Your task to perform on an android device: move a message to another label in the gmail app Image 0: 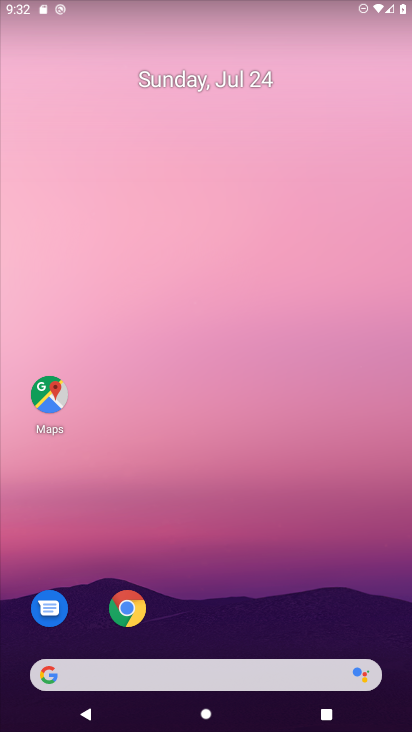
Step 0: drag from (188, 628) to (231, 190)
Your task to perform on an android device: move a message to another label in the gmail app Image 1: 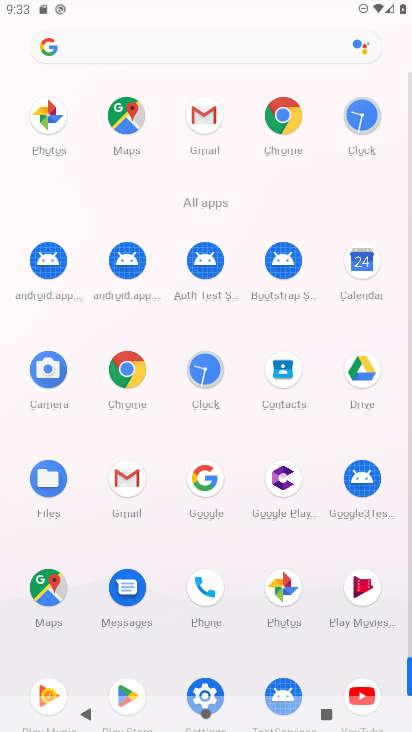
Step 1: click (122, 482)
Your task to perform on an android device: move a message to another label in the gmail app Image 2: 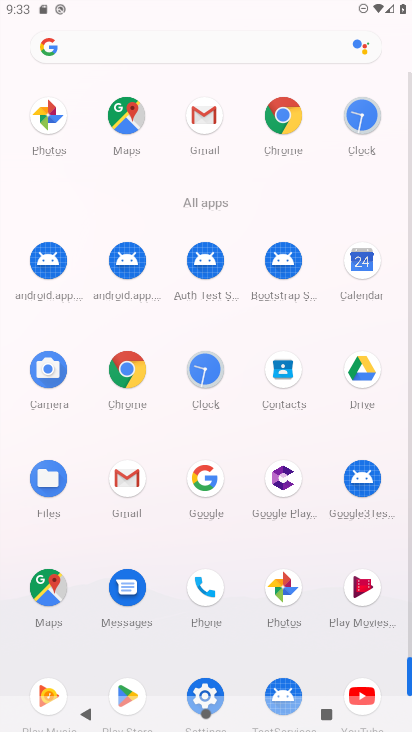
Step 2: click (122, 482)
Your task to perform on an android device: move a message to another label in the gmail app Image 3: 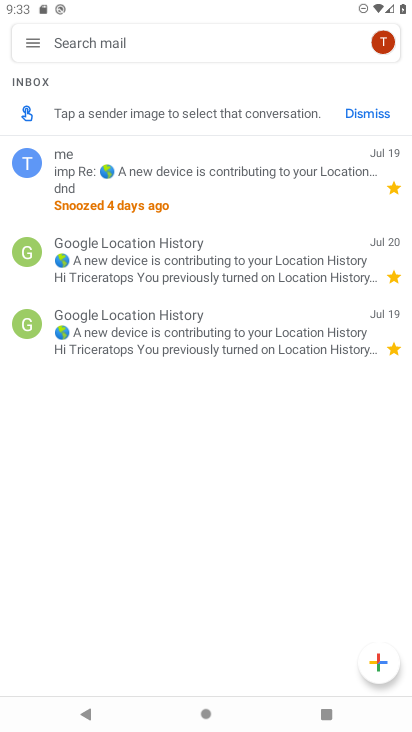
Step 3: drag from (230, 595) to (200, 302)
Your task to perform on an android device: move a message to another label in the gmail app Image 4: 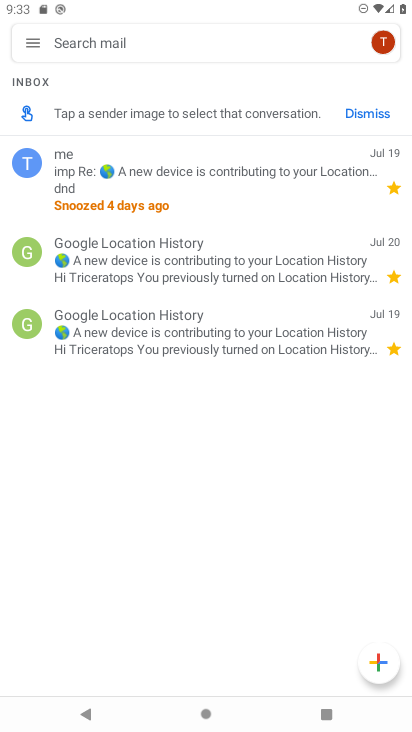
Step 4: drag from (204, 580) to (207, 382)
Your task to perform on an android device: move a message to another label in the gmail app Image 5: 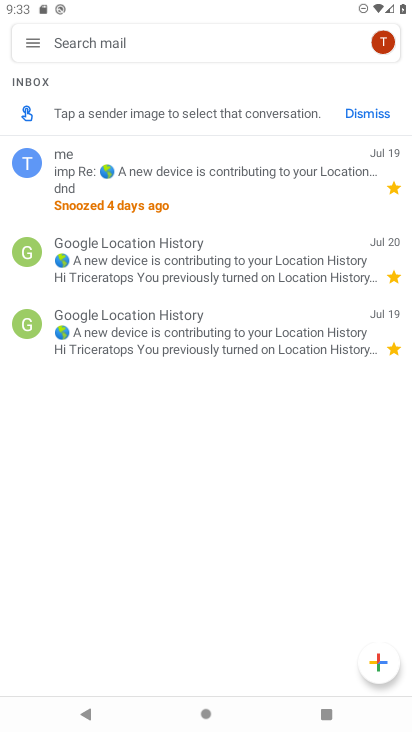
Step 5: drag from (187, 564) to (211, 270)
Your task to perform on an android device: move a message to another label in the gmail app Image 6: 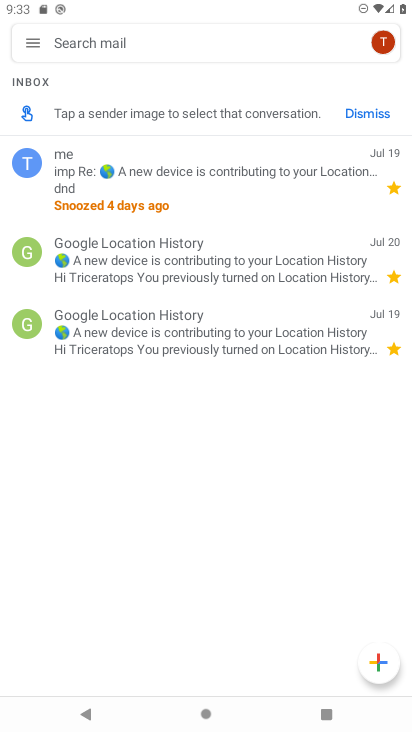
Step 6: drag from (173, 556) to (175, 160)
Your task to perform on an android device: move a message to another label in the gmail app Image 7: 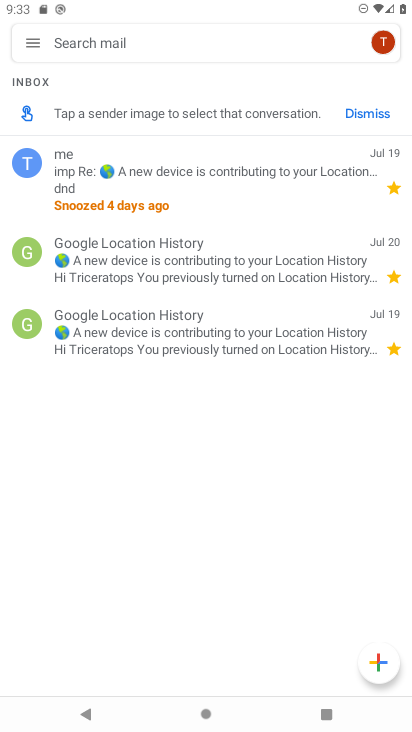
Step 7: drag from (197, 555) to (202, 391)
Your task to perform on an android device: move a message to another label in the gmail app Image 8: 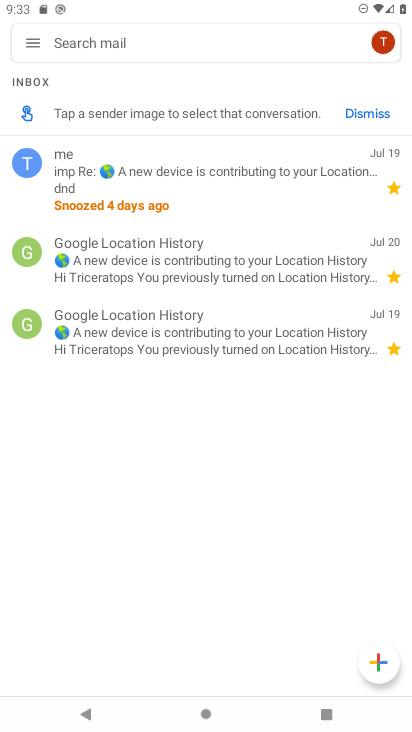
Step 8: drag from (187, 515) to (174, 358)
Your task to perform on an android device: move a message to another label in the gmail app Image 9: 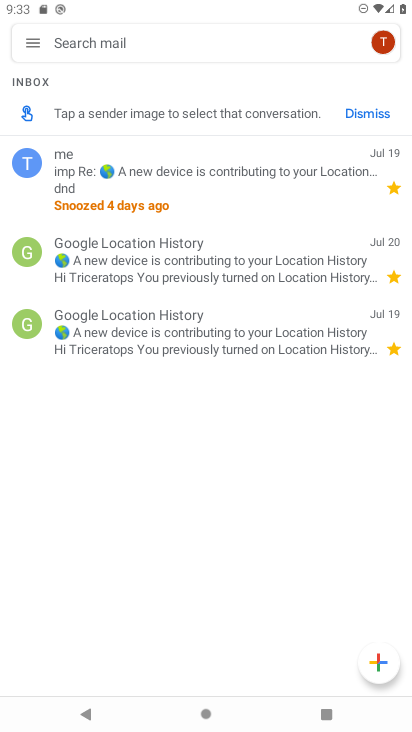
Step 9: click (27, 49)
Your task to perform on an android device: move a message to another label in the gmail app Image 10: 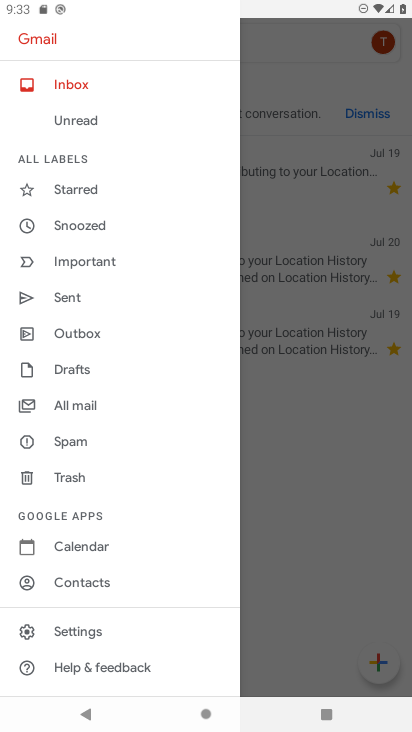
Step 10: drag from (123, 588) to (133, 317)
Your task to perform on an android device: move a message to another label in the gmail app Image 11: 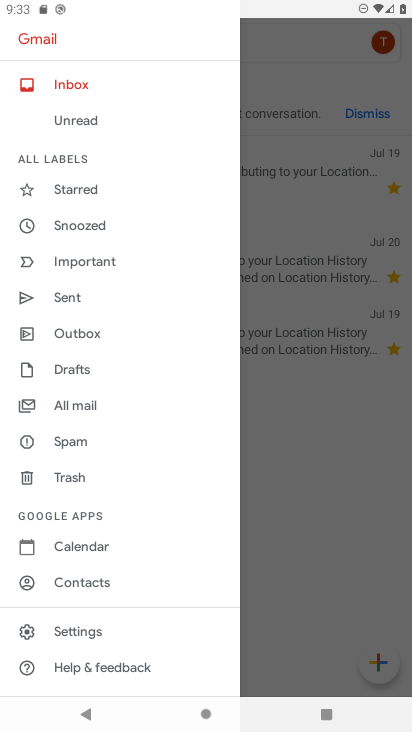
Step 11: drag from (117, 628) to (119, 531)
Your task to perform on an android device: move a message to another label in the gmail app Image 12: 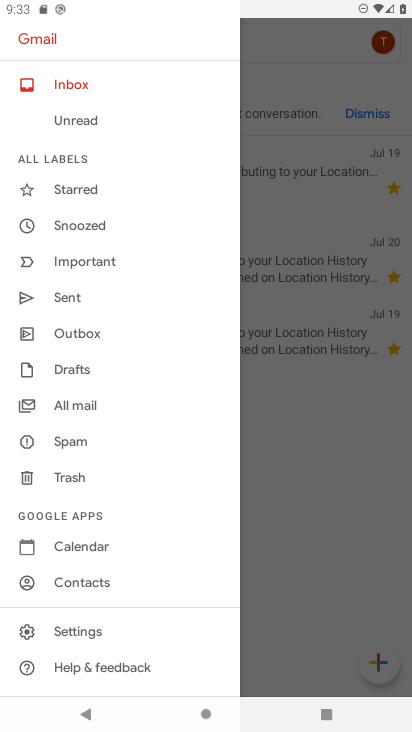
Step 12: drag from (77, 582) to (107, 152)
Your task to perform on an android device: move a message to another label in the gmail app Image 13: 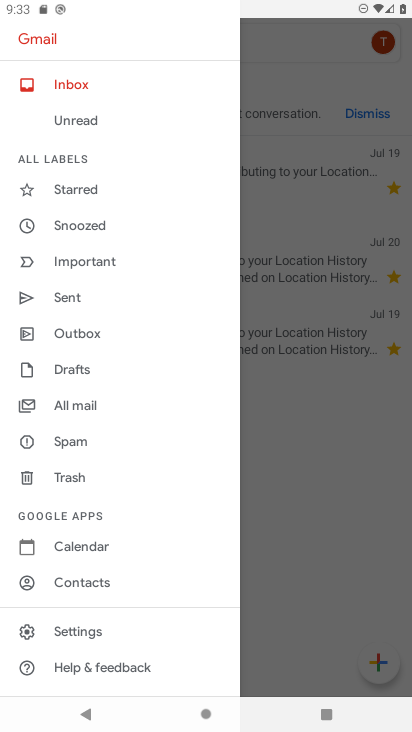
Step 13: drag from (177, 626) to (181, 236)
Your task to perform on an android device: move a message to another label in the gmail app Image 14: 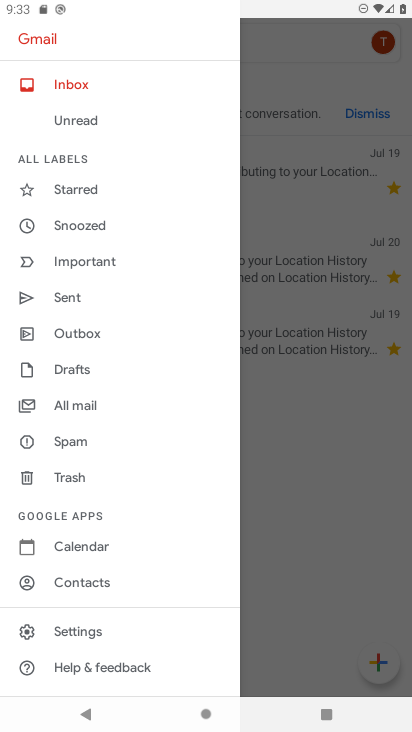
Step 14: drag from (173, 612) to (153, 341)
Your task to perform on an android device: move a message to another label in the gmail app Image 15: 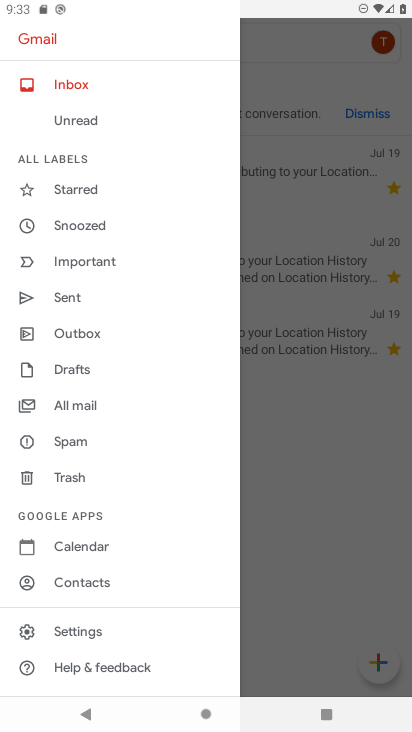
Step 15: drag from (101, 576) to (112, 269)
Your task to perform on an android device: move a message to another label in the gmail app Image 16: 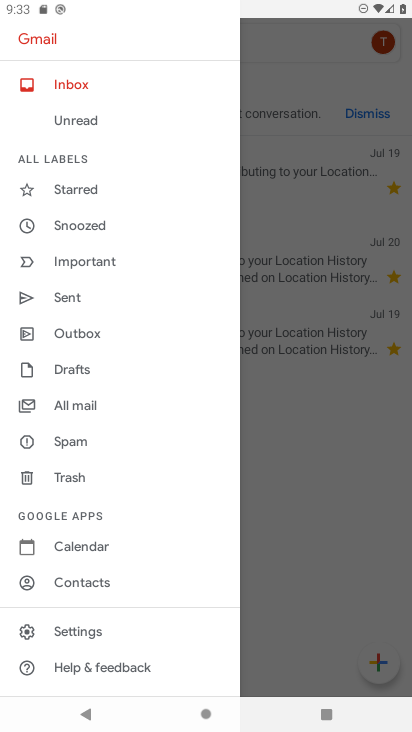
Step 16: click (330, 478)
Your task to perform on an android device: move a message to another label in the gmail app Image 17: 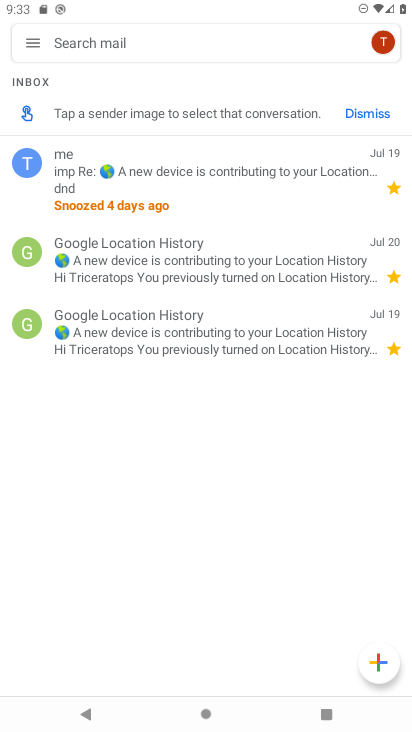
Step 17: click (149, 163)
Your task to perform on an android device: move a message to another label in the gmail app Image 18: 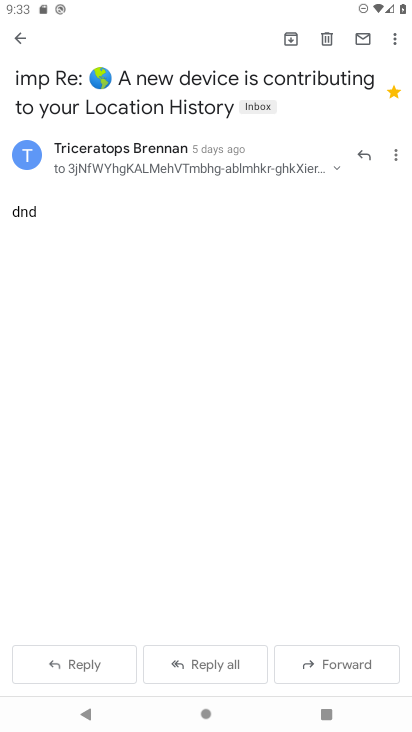
Step 18: click (389, 44)
Your task to perform on an android device: move a message to another label in the gmail app Image 19: 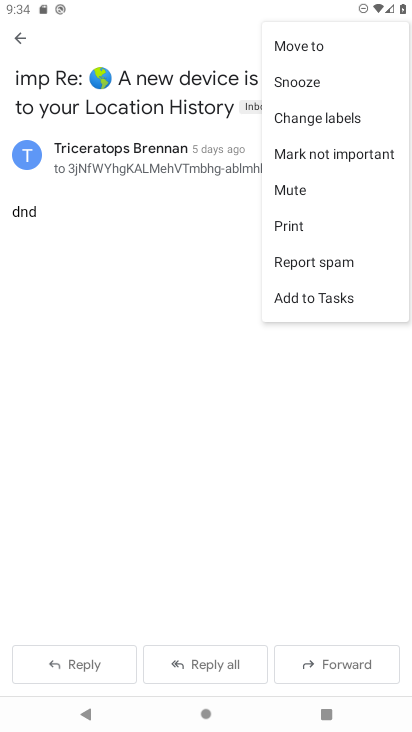
Step 19: click (343, 110)
Your task to perform on an android device: move a message to another label in the gmail app Image 20: 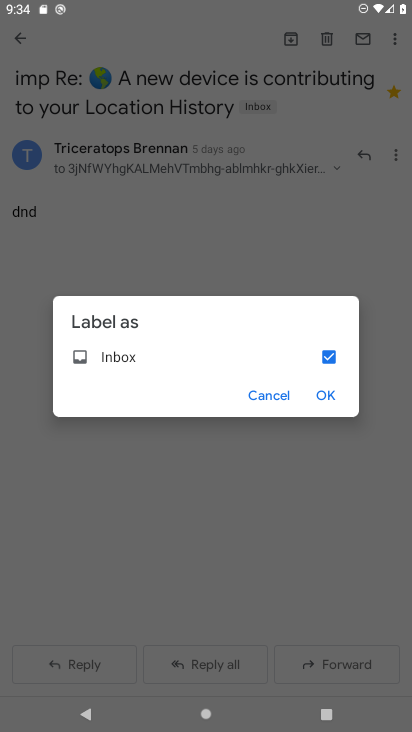
Step 20: click (264, 388)
Your task to perform on an android device: move a message to another label in the gmail app Image 21: 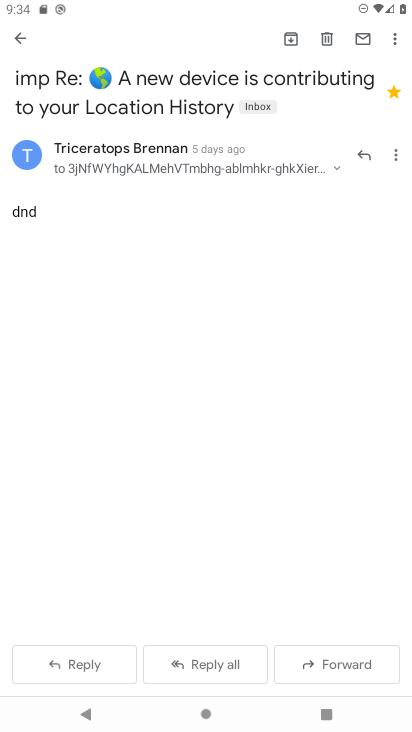
Step 21: click (389, 80)
Your task to perform on an android device: move a message to another label in the gmail app Image 22: 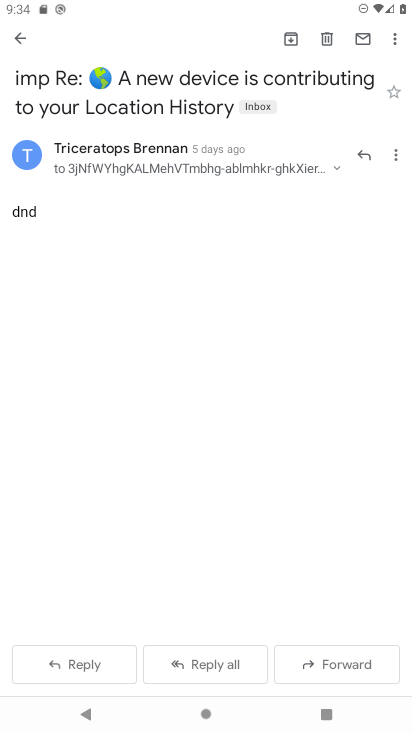
Step 22: task complete